Your task to perform on an android device: Open Google Chrome and click the shortcut for Amazon.com Image 0: 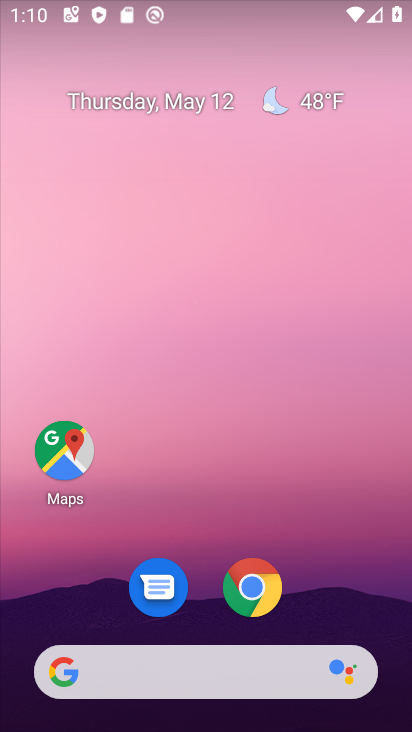
Step 0: drag from (228, 633) to (310, 143)
Your task to perform on an android device: Open Google Chrome and click the shortcut for Amazon.com Image 1: 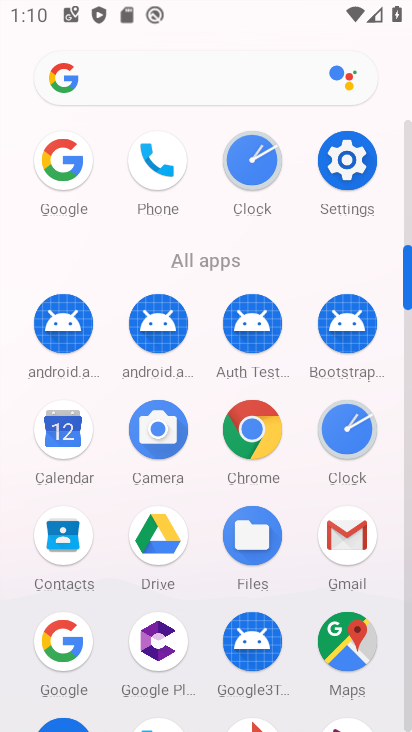
Step 1: click (254, 455)
Your task to perform on an android device: Open Google Chrome and click the shortcut for Amazon.com Image 2: 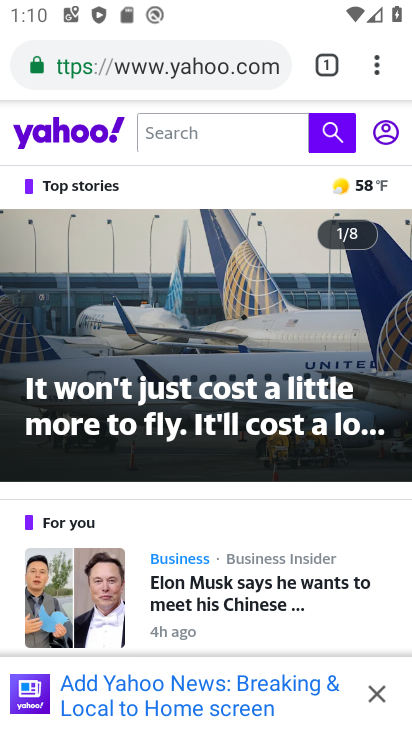
Step 2: click (255, 69)
Your task to perform on an android device: Open Google Chrome and click the shortcut for Amazon.com Image 3: 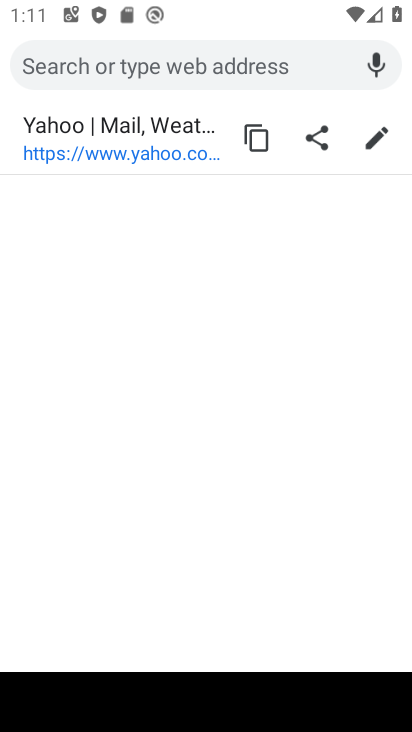
Step 3: type "amzon"
Your task to perform on an android device: Open Google Chrome and click the shortcut for Amazon.com Image 4: 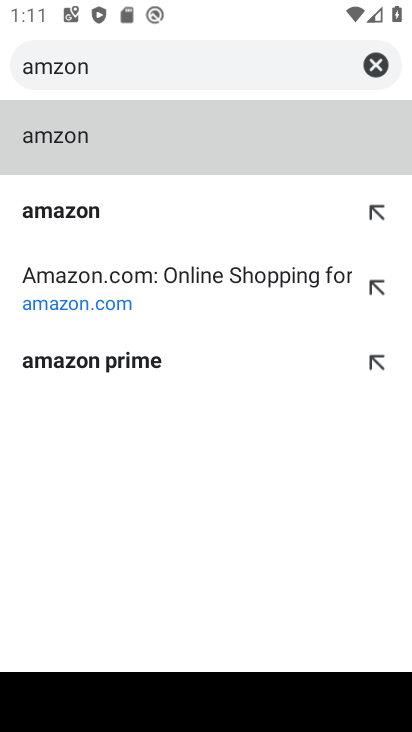
Step 4: click (156, 294)
Your task to perform on an android device: Open Google Chrome and click the shortcut for Amazon.com Image 5: 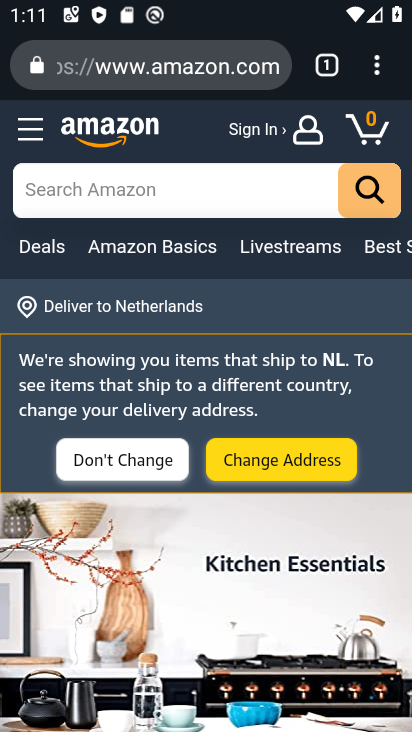
Step 5: task complete